Your task to perform on an android device: Play the last video I watched on Youtube Image 0: 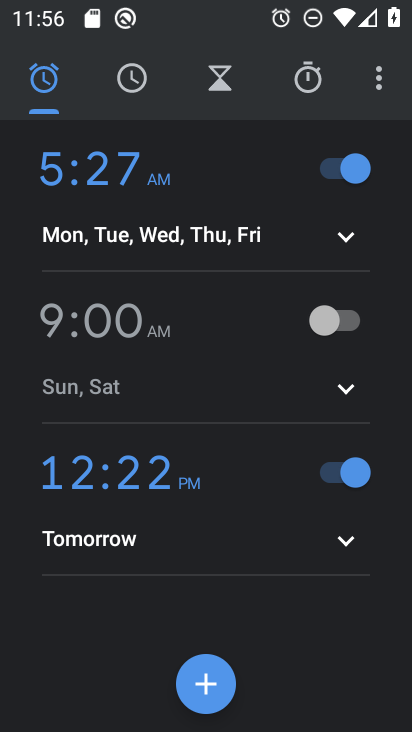
Step 0: press home button
Your task to perform on an android device: Play the last video I watched on Youtube Image 1: 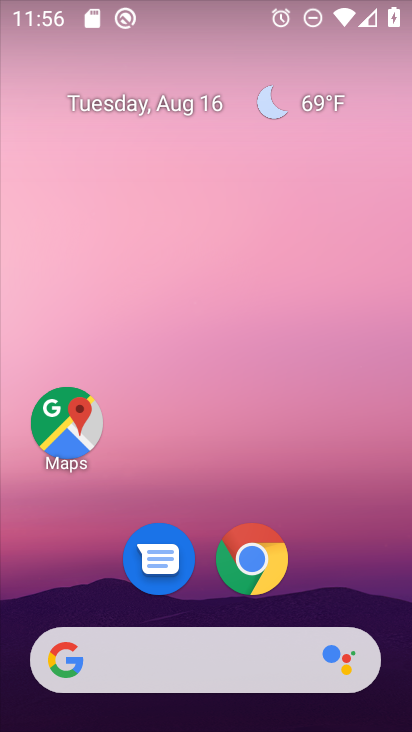
Step 1: drag from (191, 681) to (275, 34)
Your task to perform on an android device: Play the last video I watched on Youtube Image 2: 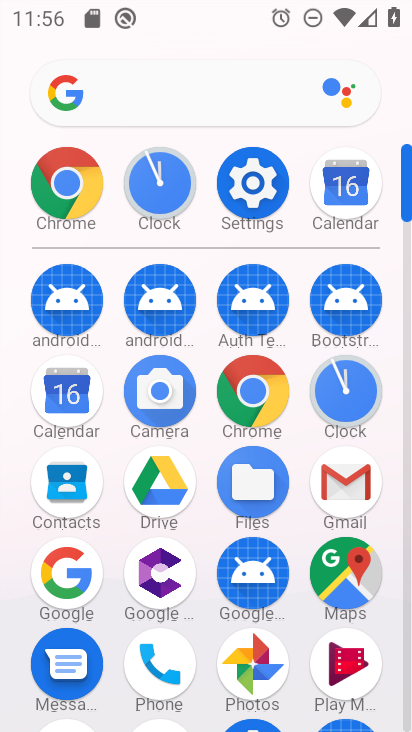
Step 2: drag from (197, 537) to (213, 311)
Your task to perform on an android device: Play the last video I watched on Youtube Image 3: 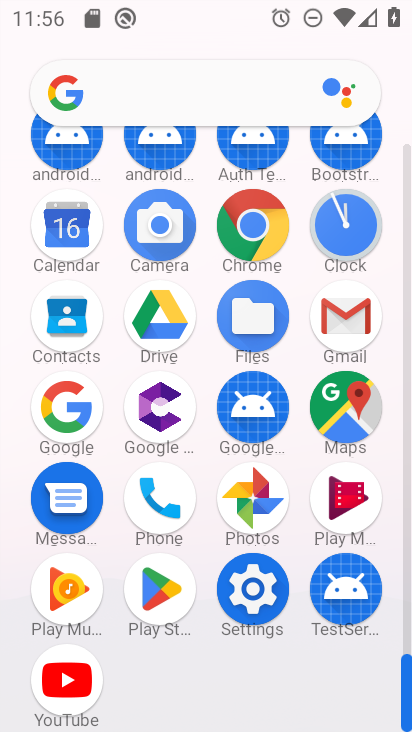
Step 3: click (64, 683)
Your task to perform on an android device: Play the last video I watched on Youtube Image 4: 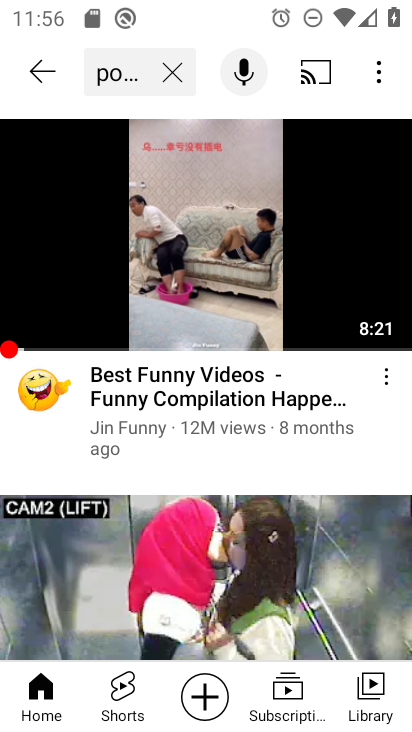
Step 4: click (371, 688)
Your task to perform on an android device: Play the last video I watched on Youtube Image 5: 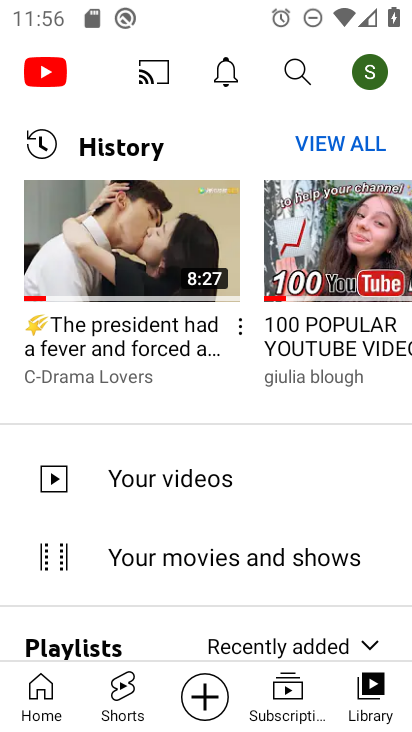
Step 5: click (132, 261)
Your task to perform on an android device: Play the last video I watched on Youtube Image 6: 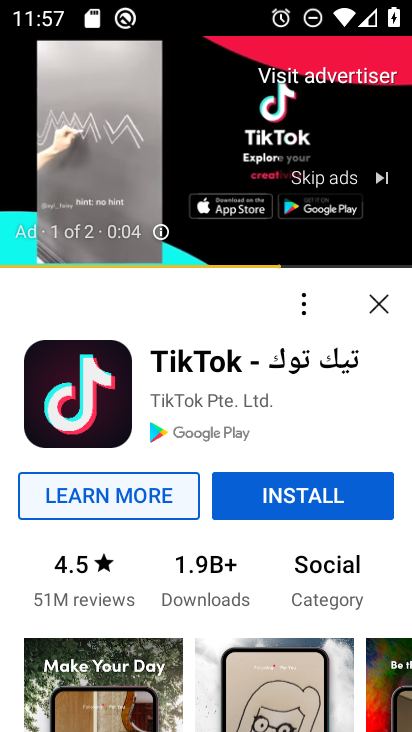
Step 6: click (312, 182)
Your task to perform on an android device: Play the last video I watched on Youtube Image 7: 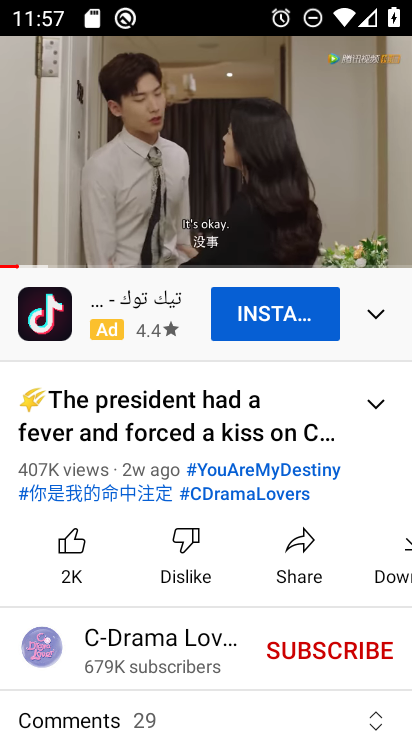
Step 7: click (201, 159)
Your task to perform on an android device: Play the last video I watched on Youtube Image 8: 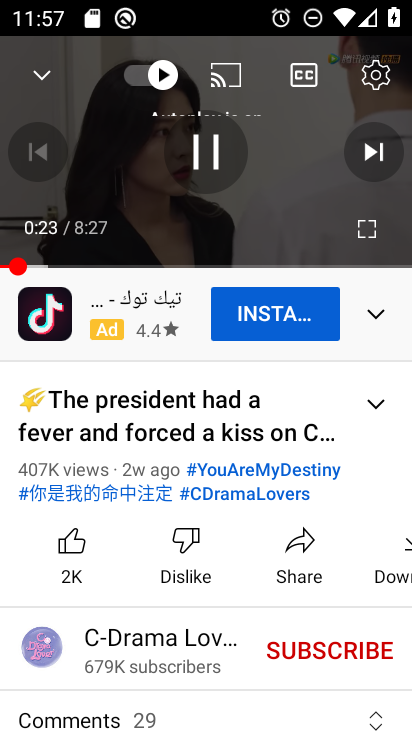
Step 8: click (201, 159)
Your task to perform on an android device: Play the last video I watched on Youtube Image 9: 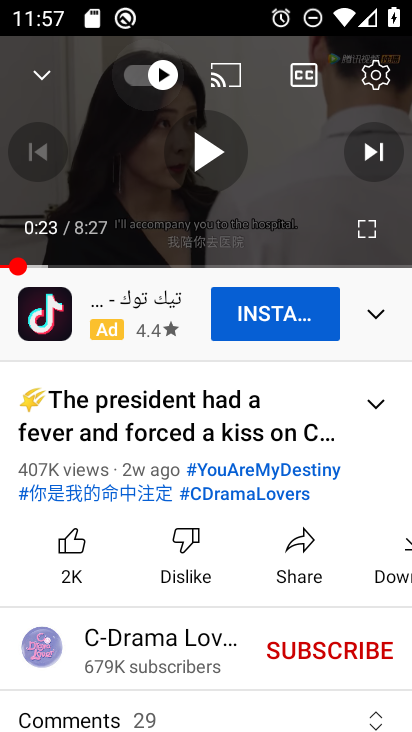
Step 9: task complete